Your task to perform on an android device: See recent photos Image 0: 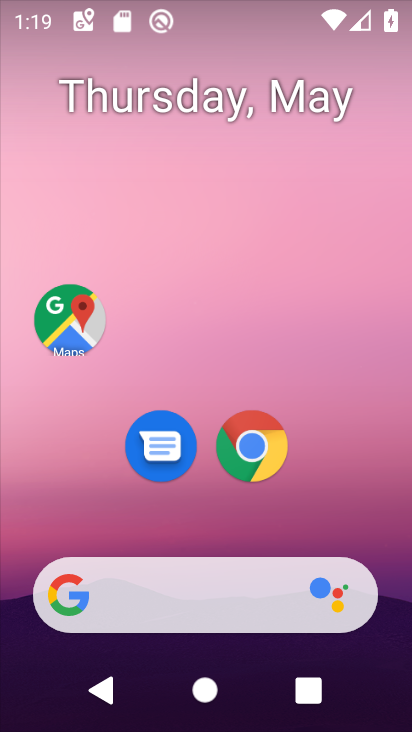
Step 0: drag from (215, 530) to (264, 277)
Your task to perform on an android device: See recent photos Image 1: 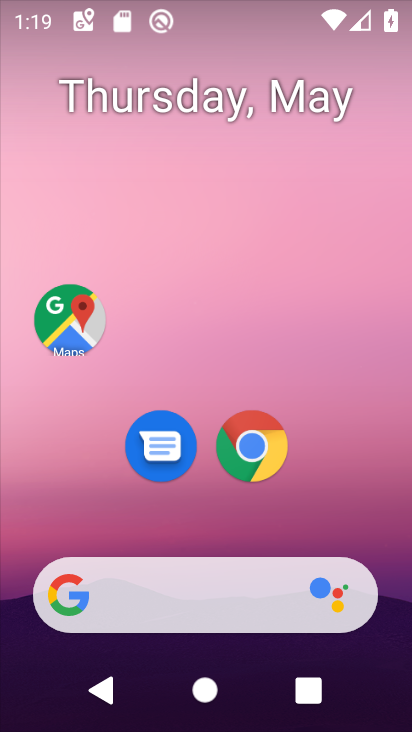
Step 1: drag from (246, 544) to (234, 265)
Your task to perform on an android device: See recent photos Image 2: 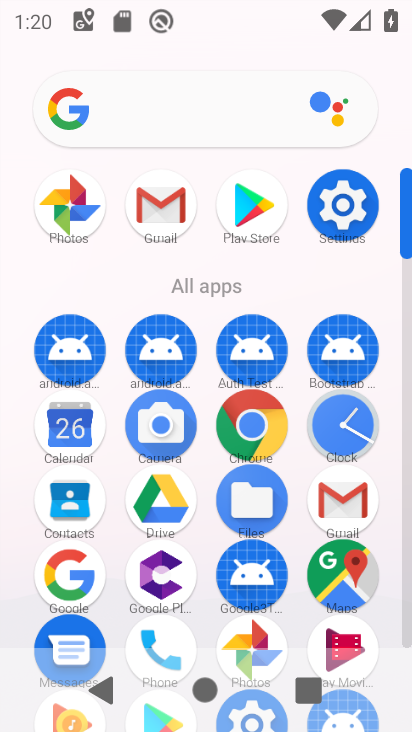
Step 2: click (73, 213)
Your task to perform on an android device: See recent photos Image 3: 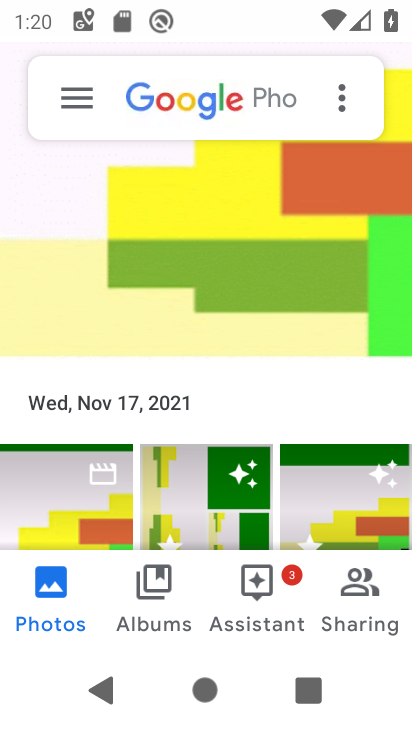
Step 3: task complete